Your task to perform on an android device: open app "Duolingo: language lessons" (install if not already installed) Image 0: 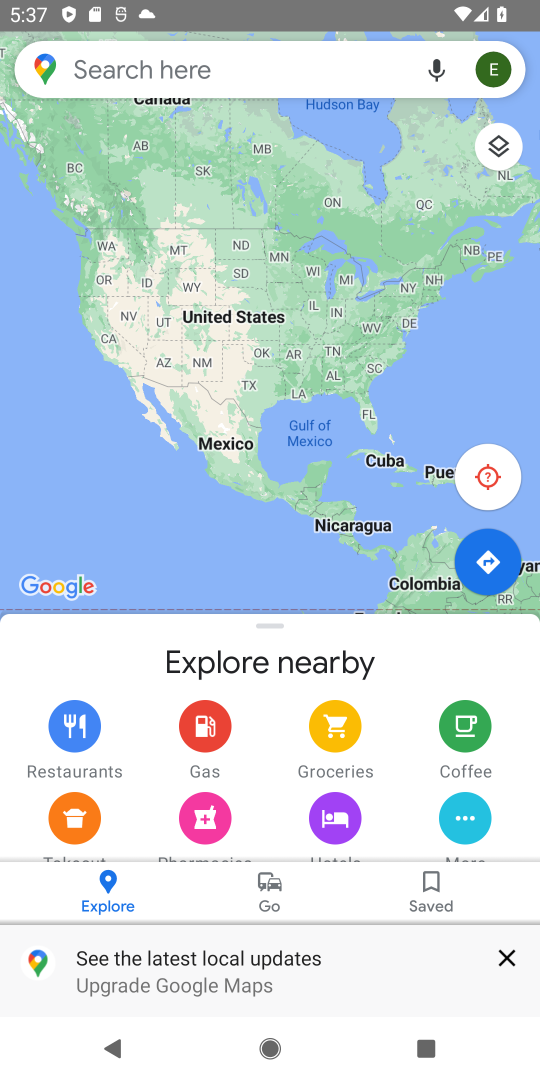
Step 0: press home button
Your task to perform on an android device: open app "Duolingo: language lessons" (install if not already installed) Image 1: 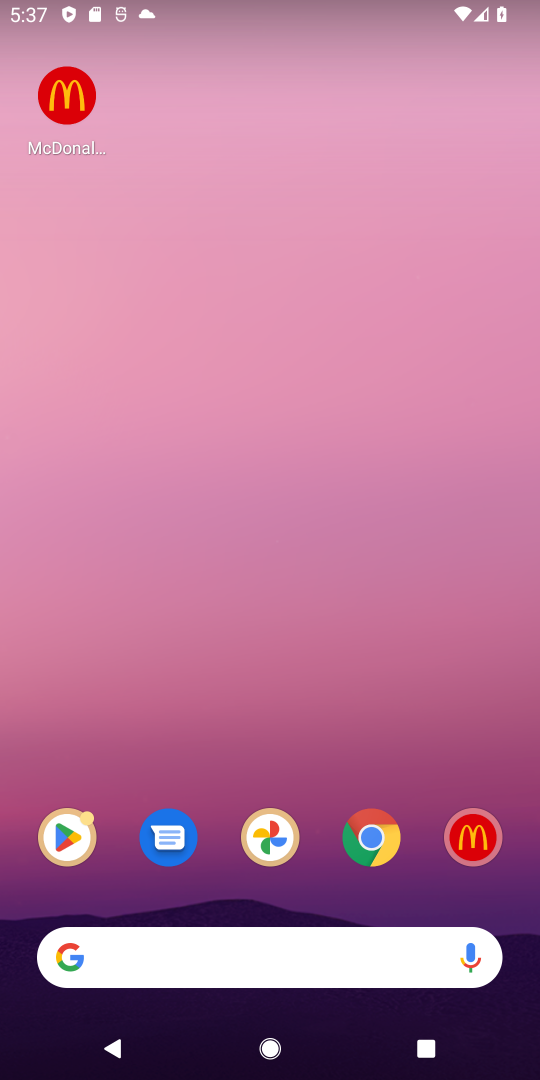
Step 1: click (49, 833)
Your task to perform on an android device: open app "Duolingo: language lessons" (install if not already installed) Image 2: 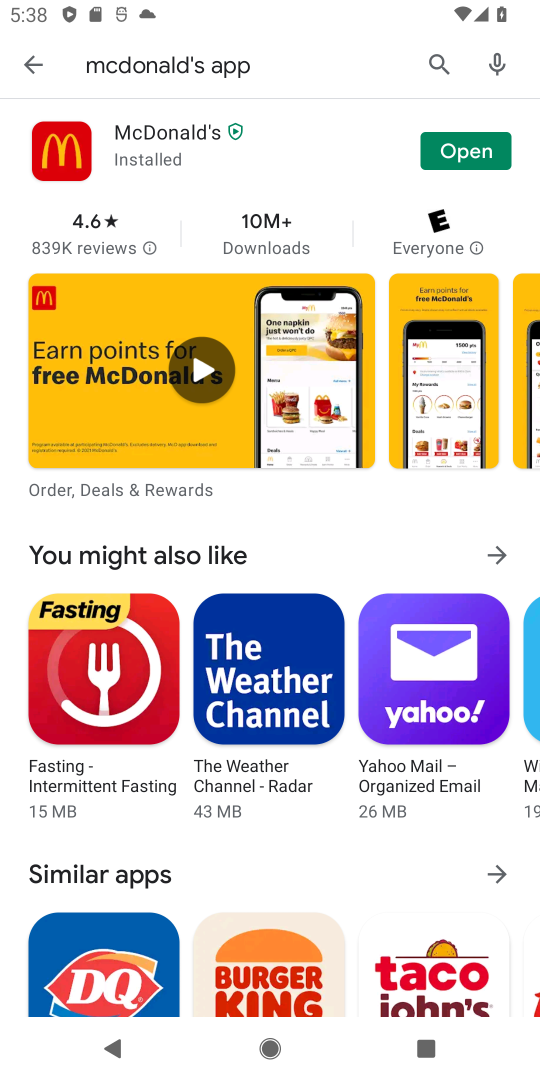
Step 2: click (458, 149)
Your task to perform on an android device: open app "Duolingo: language lessons" (install if not already installed) Image 3: 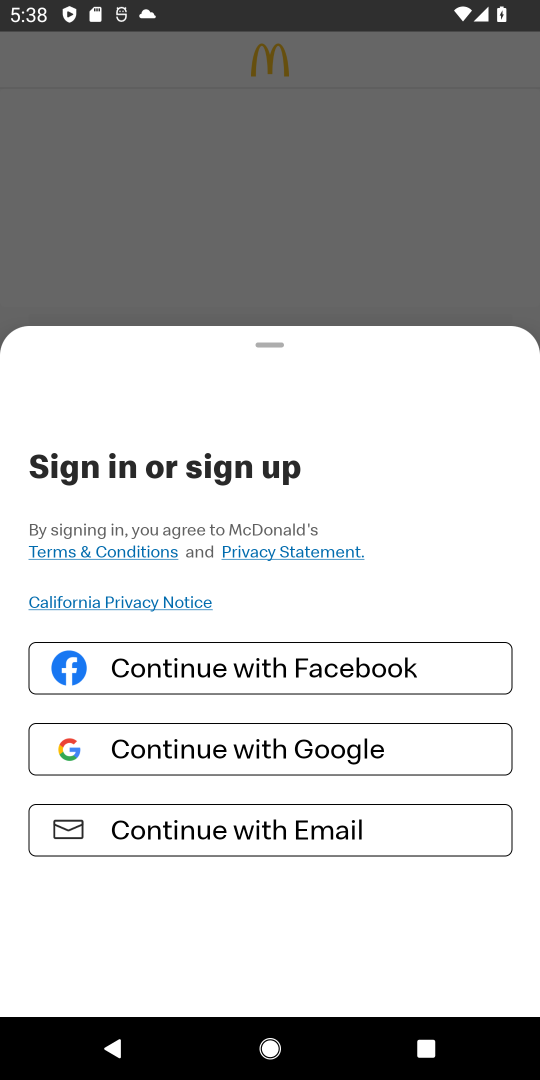
Step 3: task complete